Your task to perform on an android device: Add "logitech g910" to the cart on walmart.com Image 0: 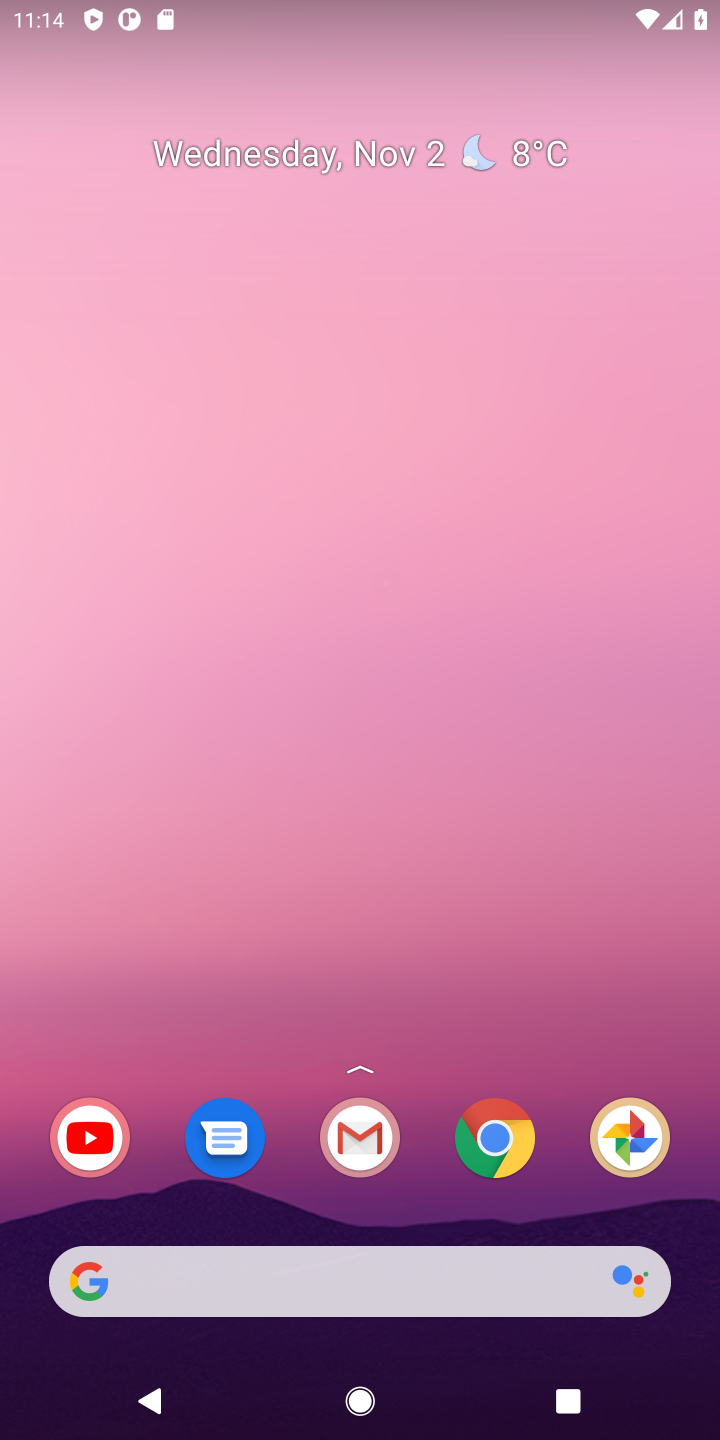
Step 0: click (502, 1144)
Your task to perform on an android device: Add "logitech g910" to the cart on walmart.com Image 1: 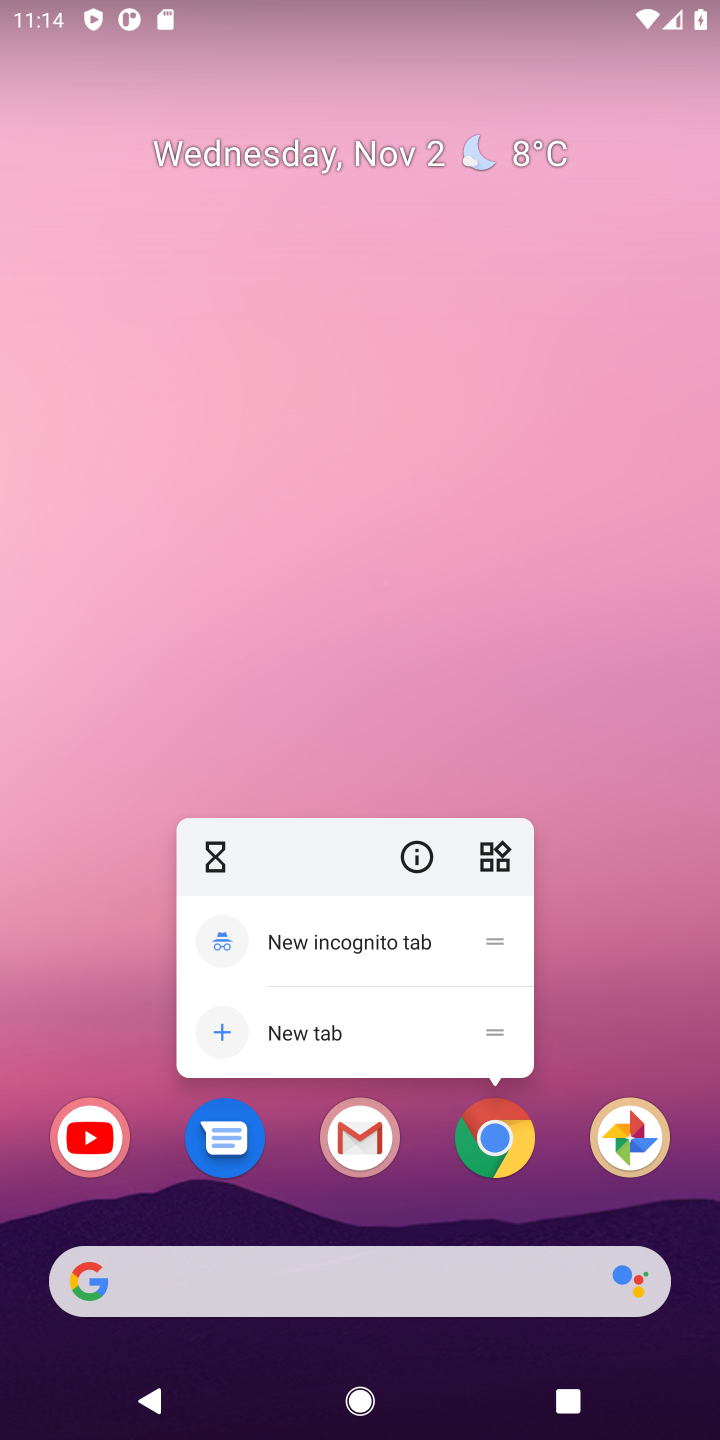
Step 1: click (502, 1144)
Your task to perform on an android device: Add "logitech g910" to the cart on walmart.com Image 2: 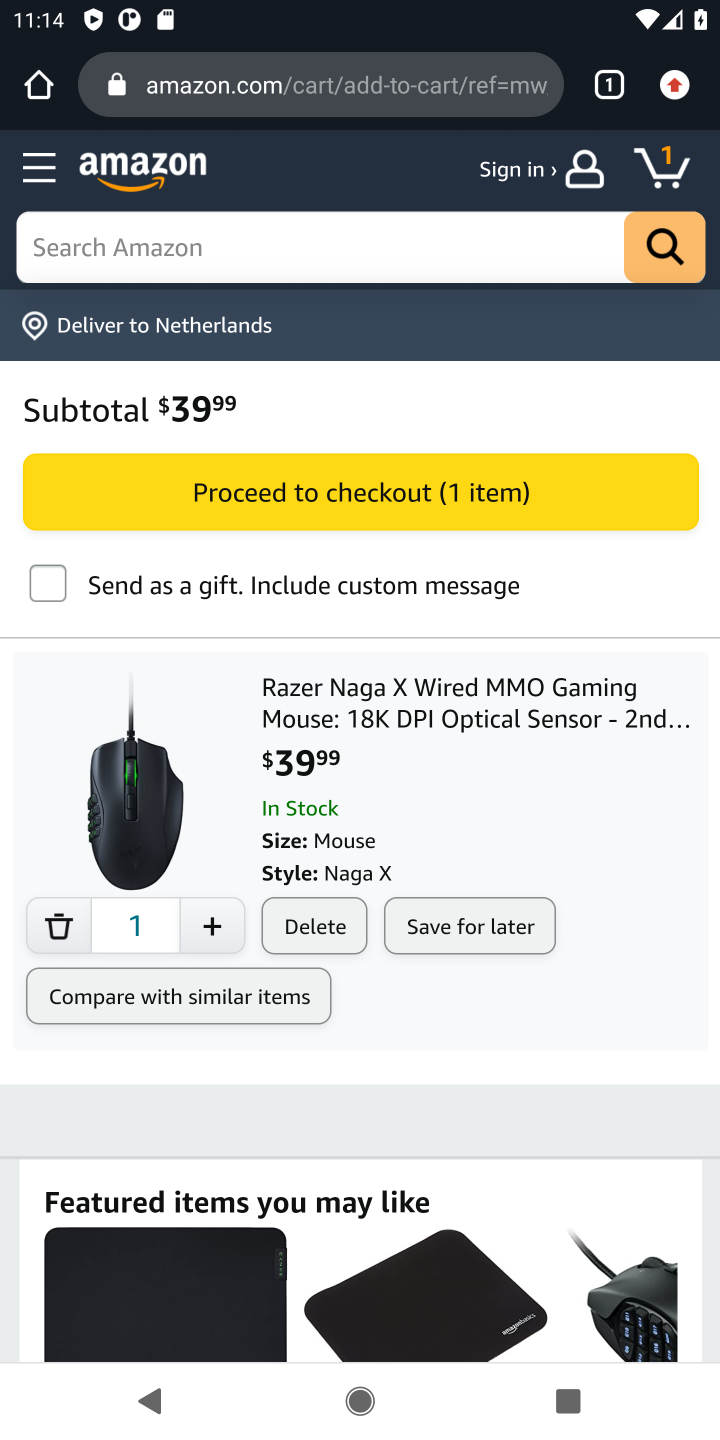
Step 2: click (215, 100)
Your task to perform on an android device: Add "logitech g910" to the cart on walmart.com Image 3: 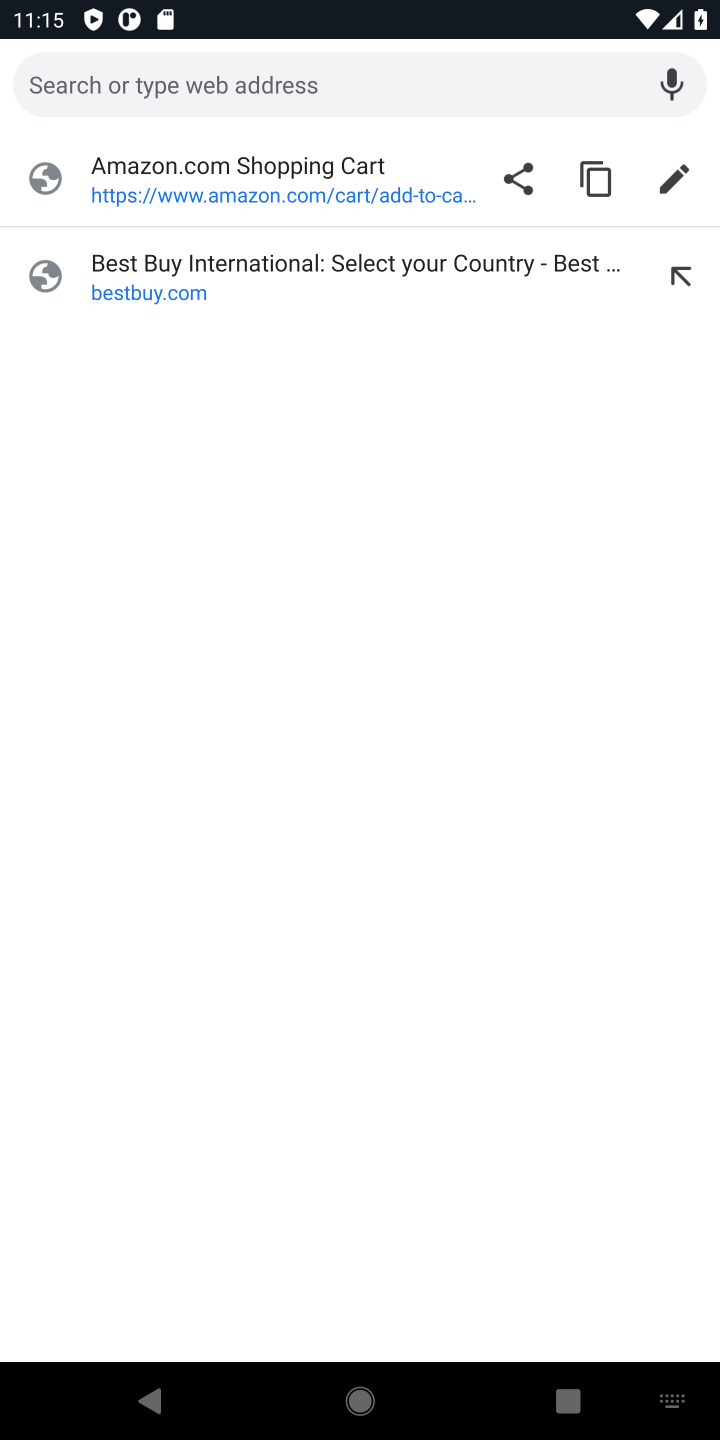
Step 3: type "walmart"
Your task to perform on an android device: Add "logitech g910" to the cart on walmart.com Image 4: 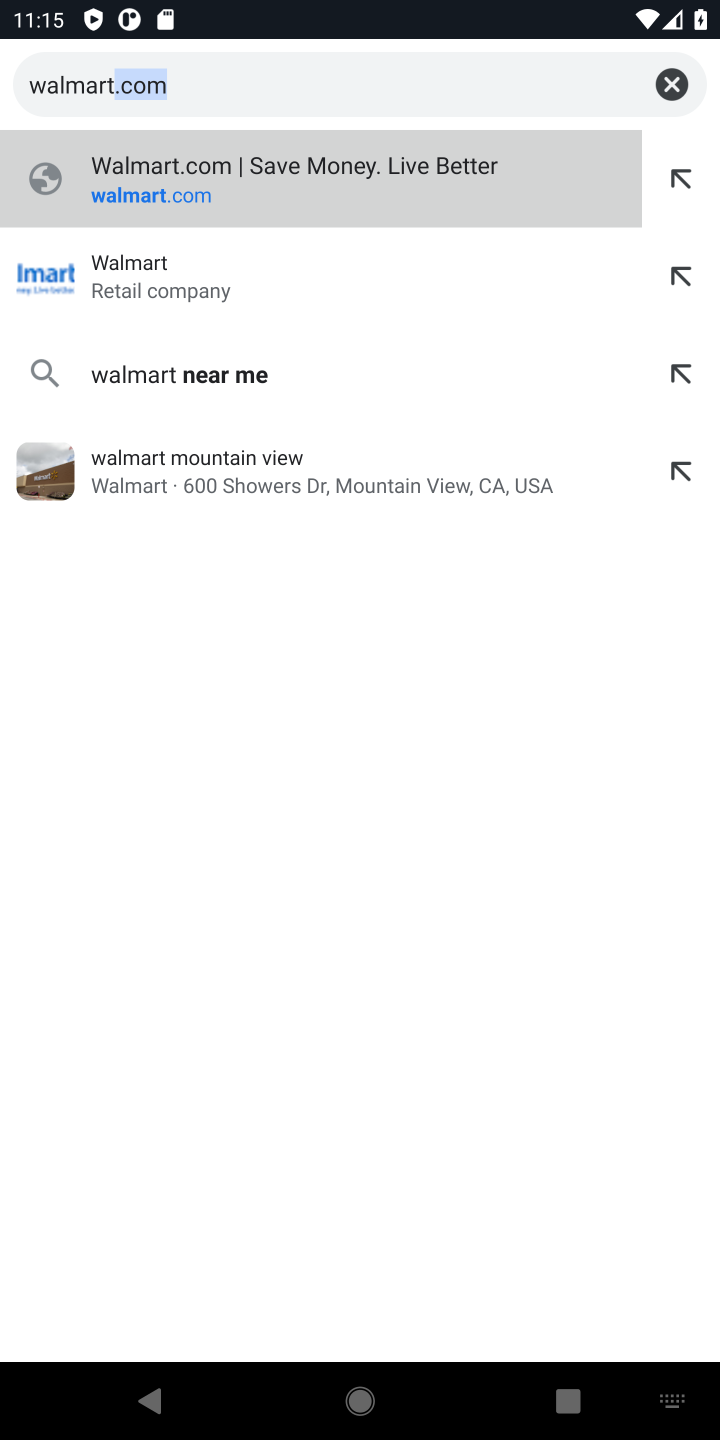
Step 4: click (254, 292)
Your task to perform on an android device: Add "logitech g910" to the cart on walmart.com Image 5: 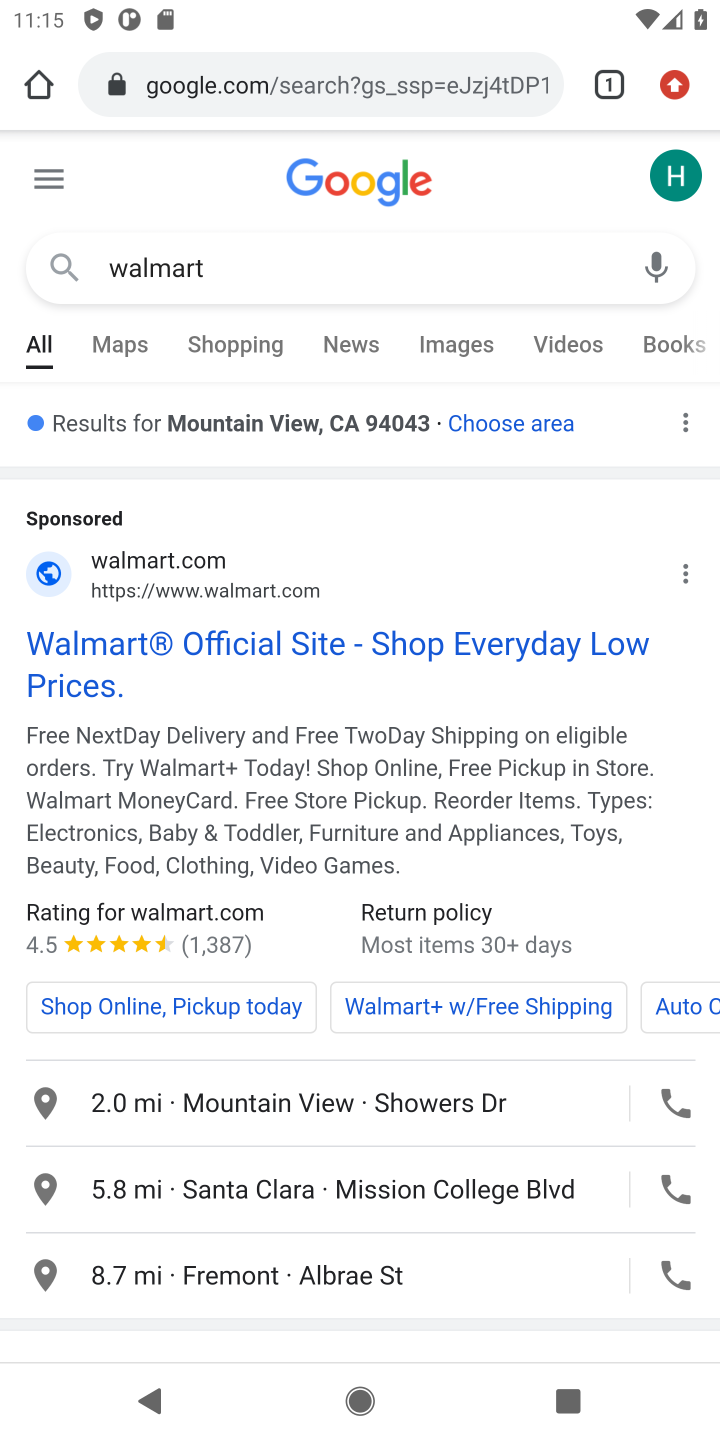
Step 5: click (90, 616)
Your task to perform on an android device: Add "logitech g910" to the cart on walmart.com Image 6: 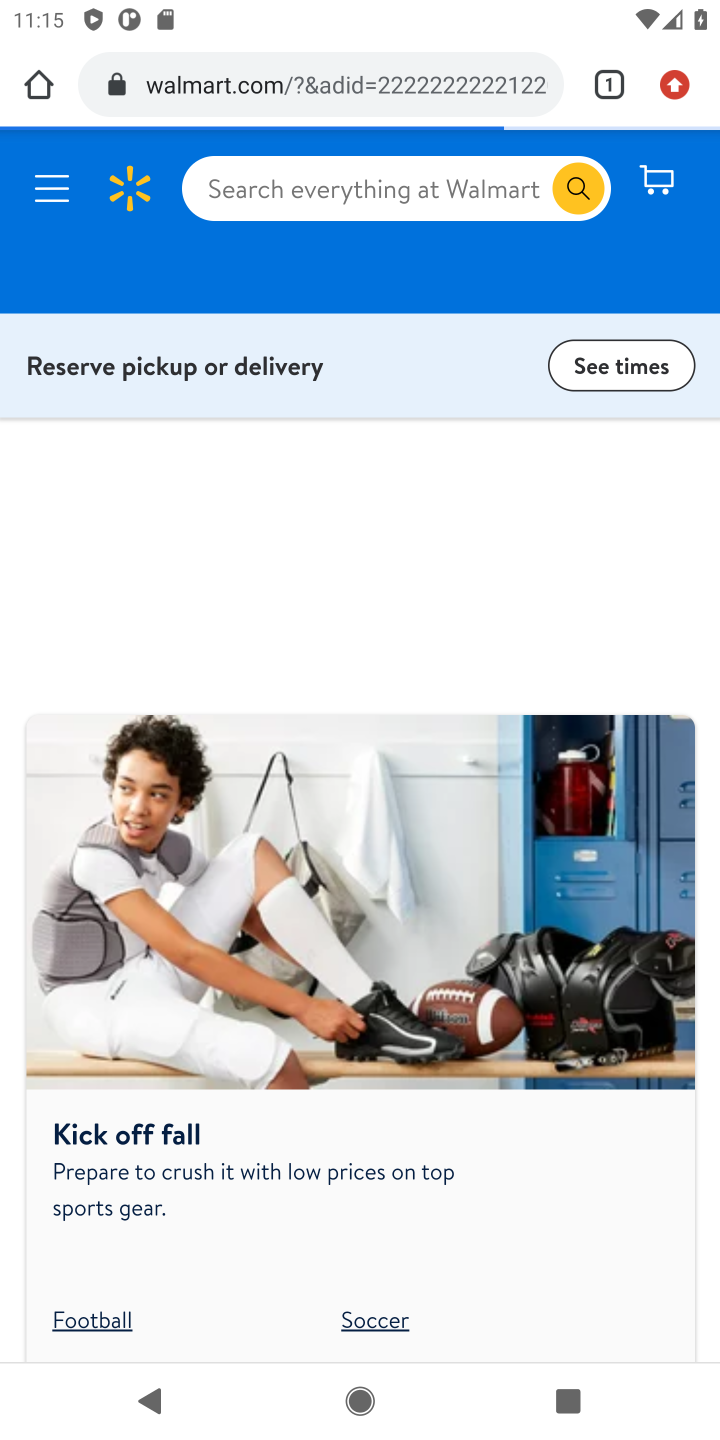
Step 6: click (295, 190)
Your task to perform on an android device: Add "logitech g910" to the cart on walmart.com Image 7: 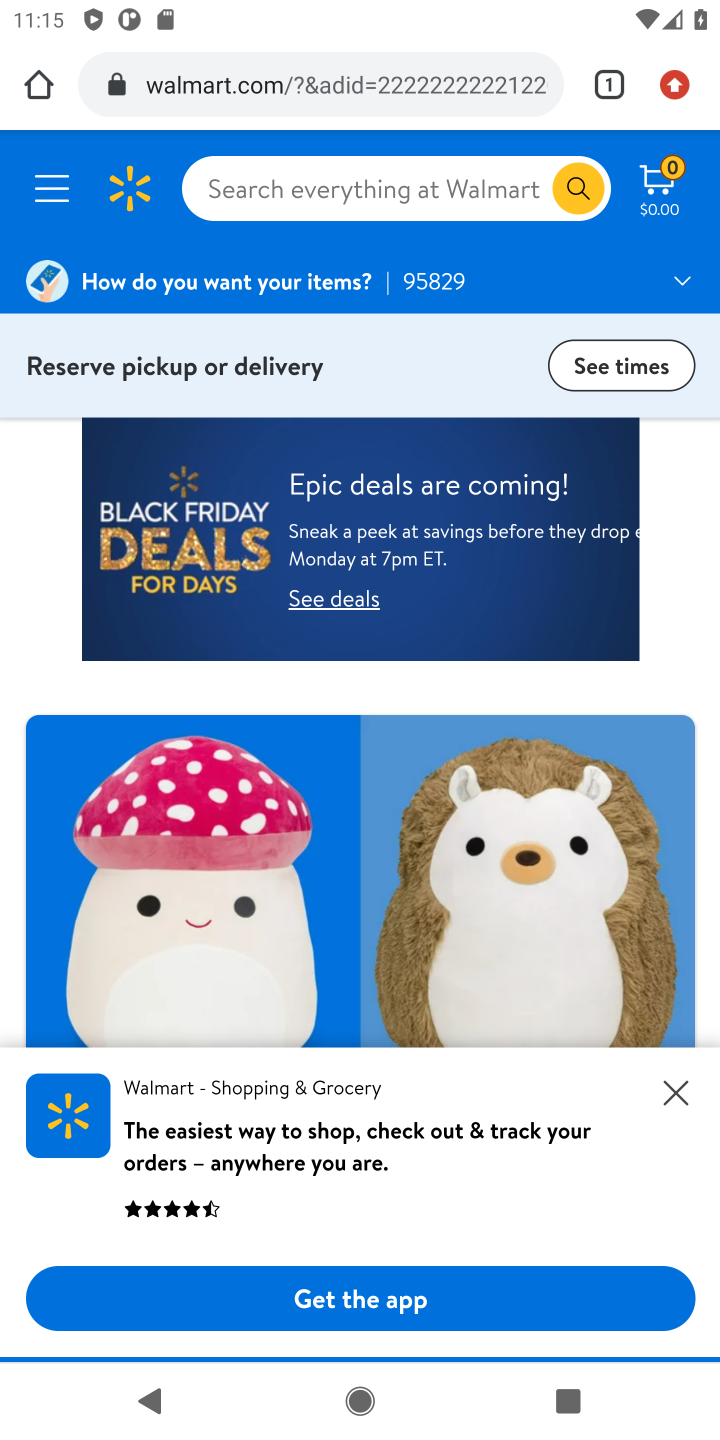
Step 7: click (275, 181)
Your task to perform on an android device: Add "logitech g910" to the cart on walmart.com Image 8: 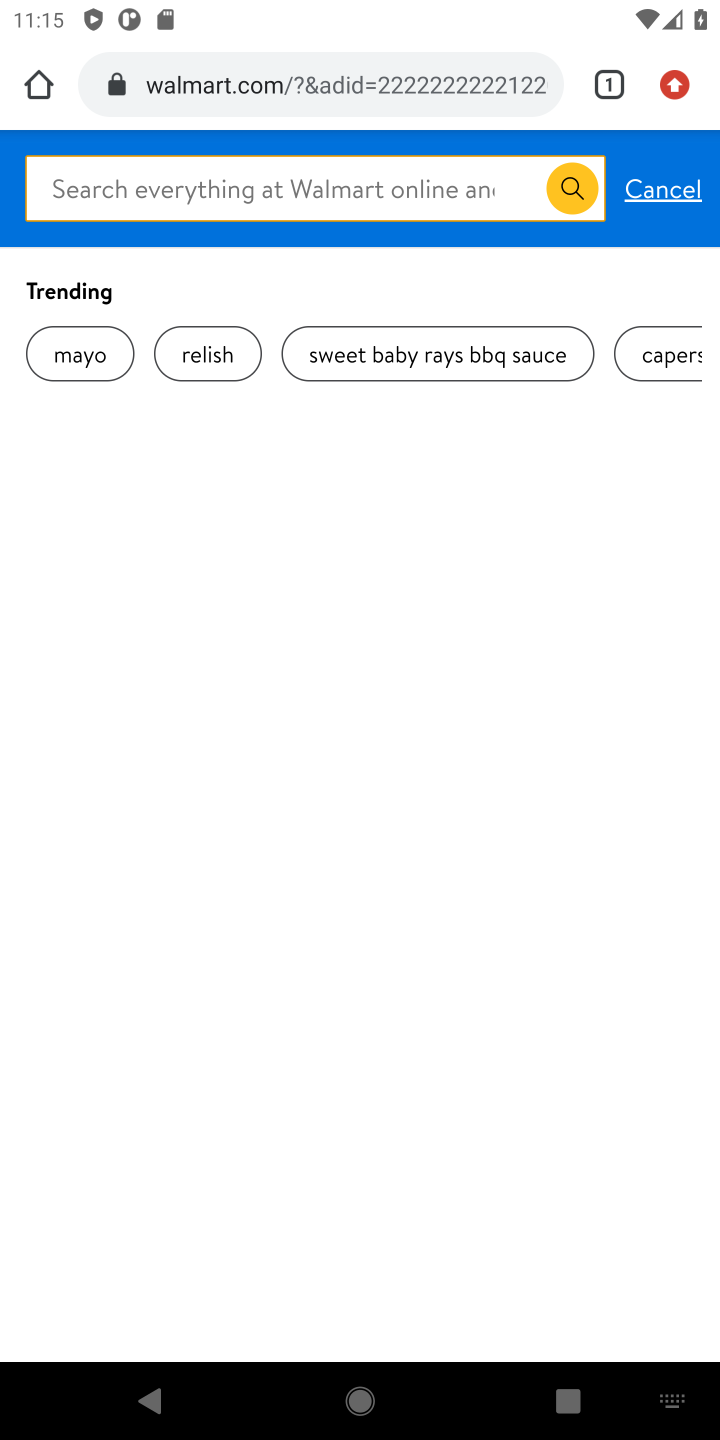
Step 8: type "logitech g910"
Your task to perform on an android device: Add "logitech g910" to the cart on walmart.com Image 9: 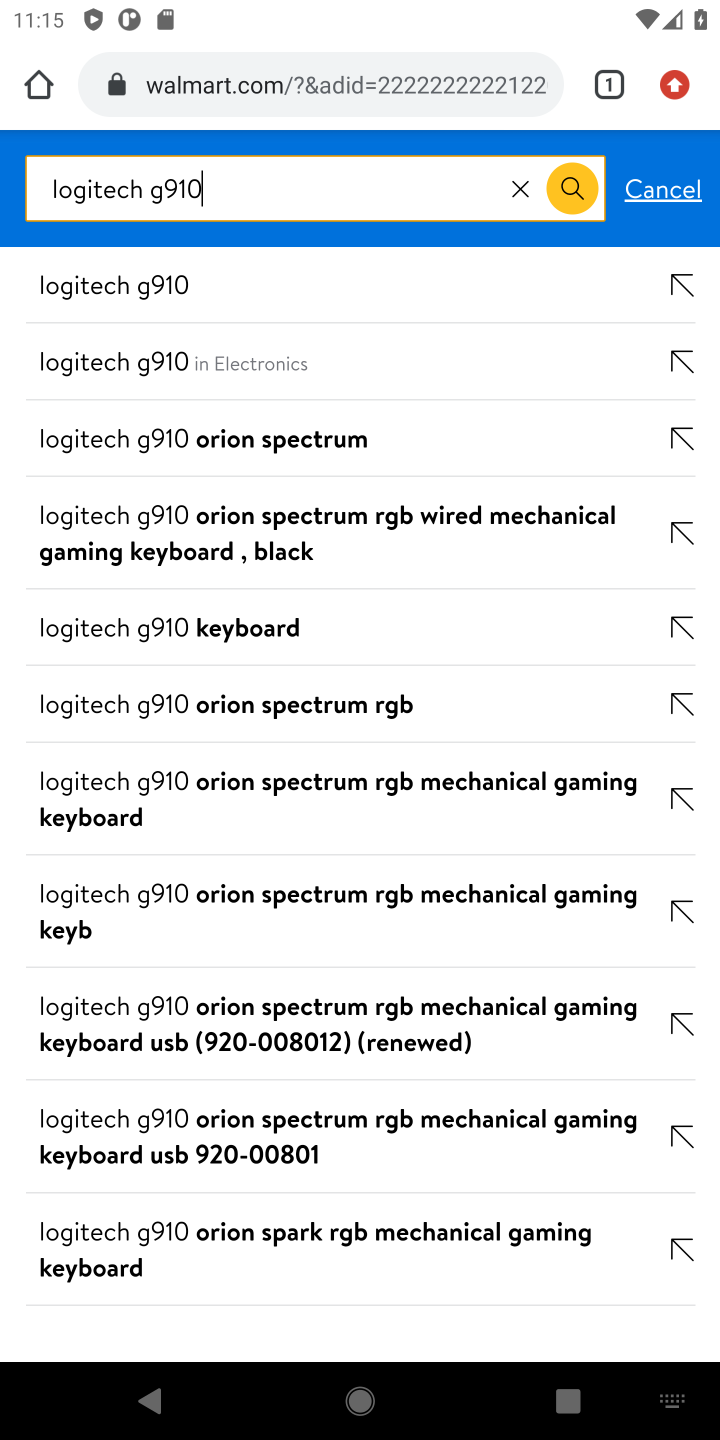
Step 9: click (572, 184)
Your task to perform on an android device: Add "logitech g910" to the cart on walmart.com Image 10: 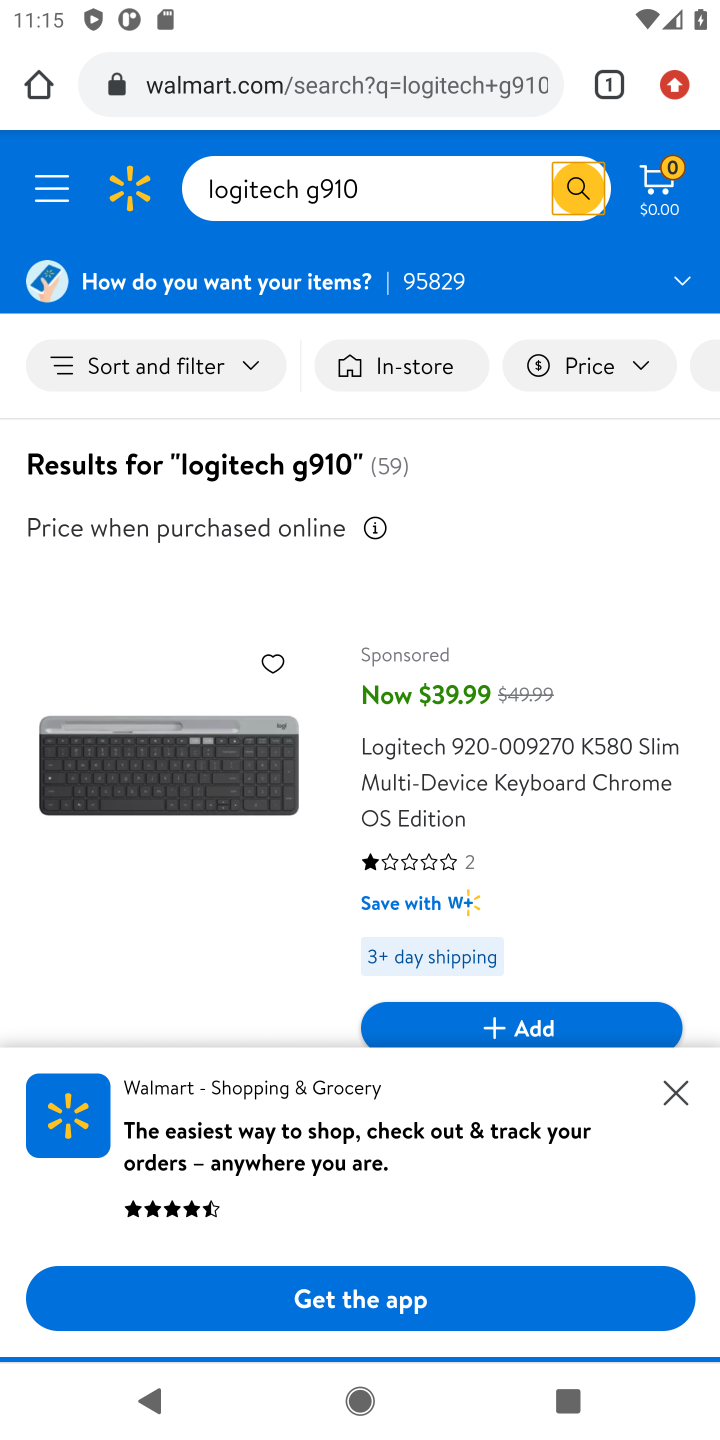
Step 10: click (675, 1082)
Your task to perform on an android device: Add "logitech g910" to the cart on walmart.com Image 11: 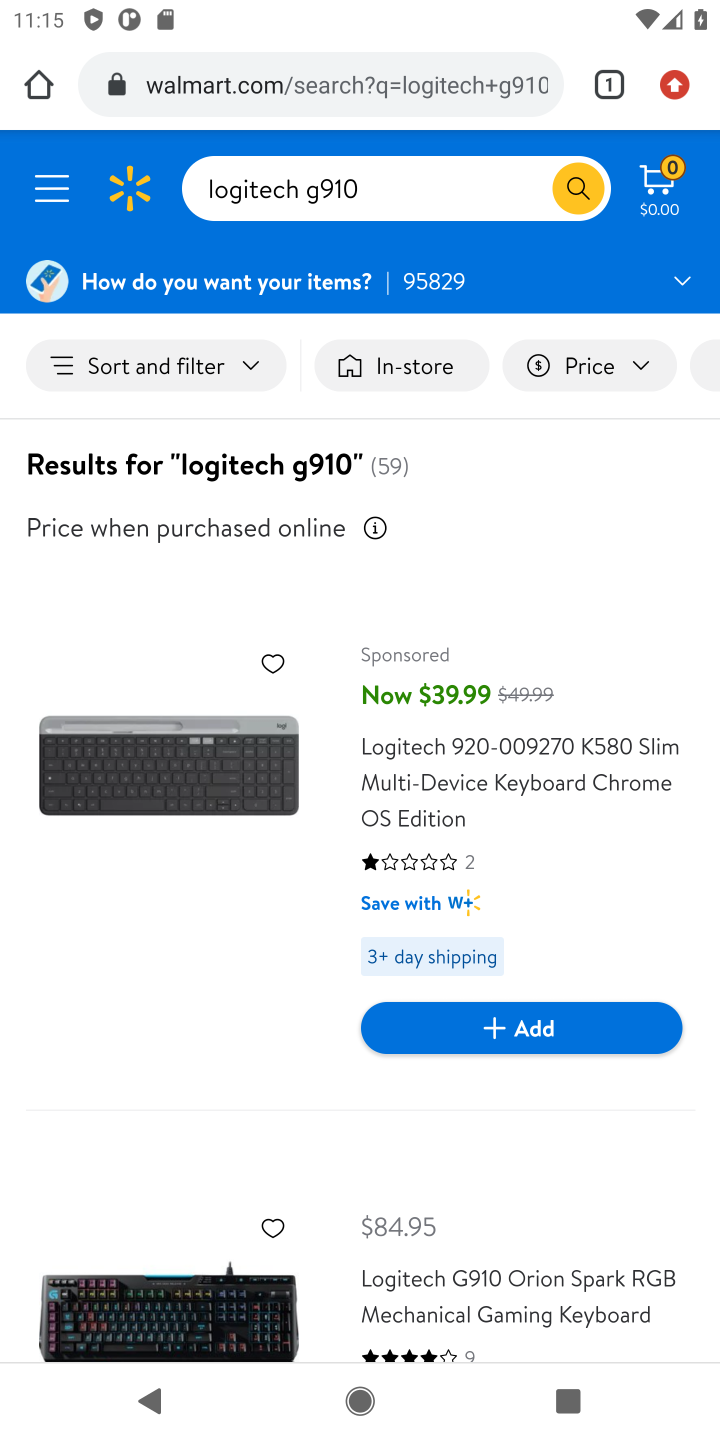
Step 11: drag from (524, 1229) to (470, 574)
Your task to perform on an android device: Add "logitech g910" to the cart on walmart.com Image 12: 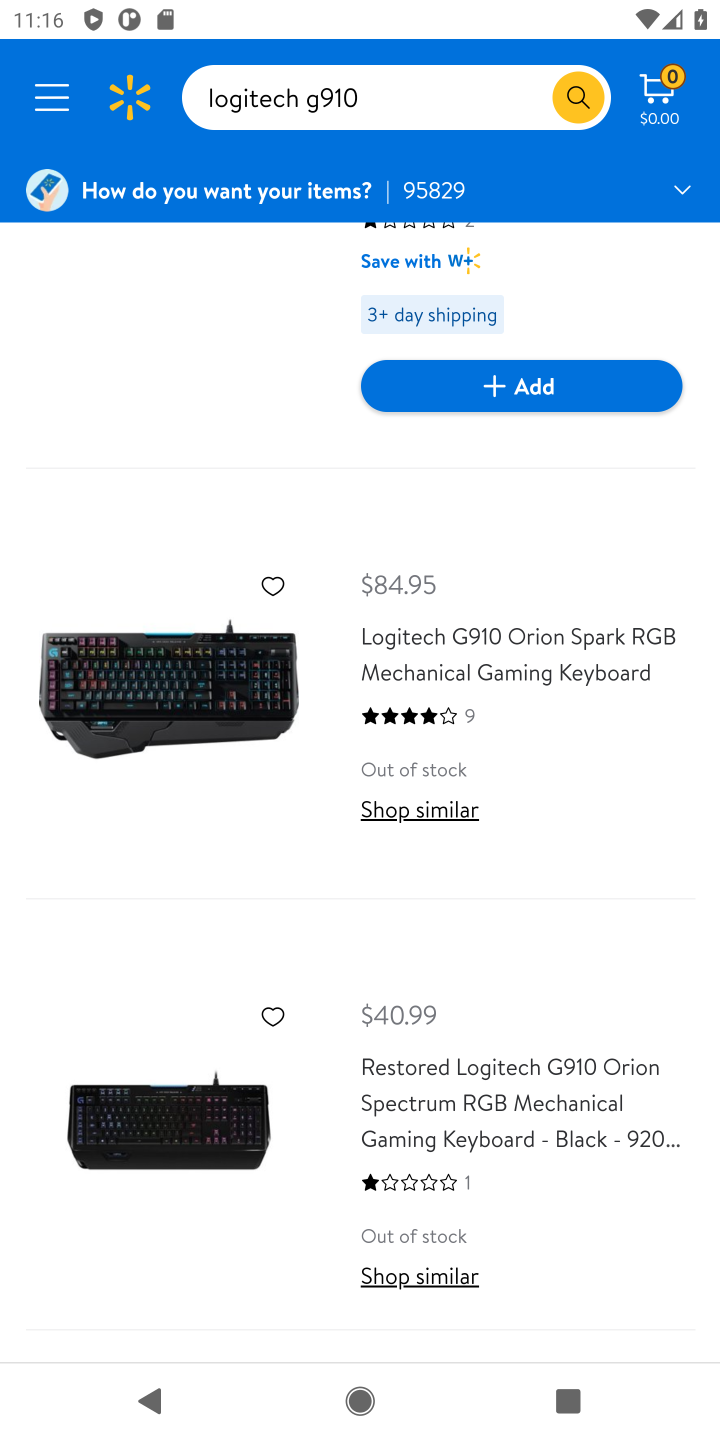
Step 12: drag from (548, 1229) to (469, 537)
Your task to perform on an android device: Add "logitech g910" to the cart on walmart.com Image 13: 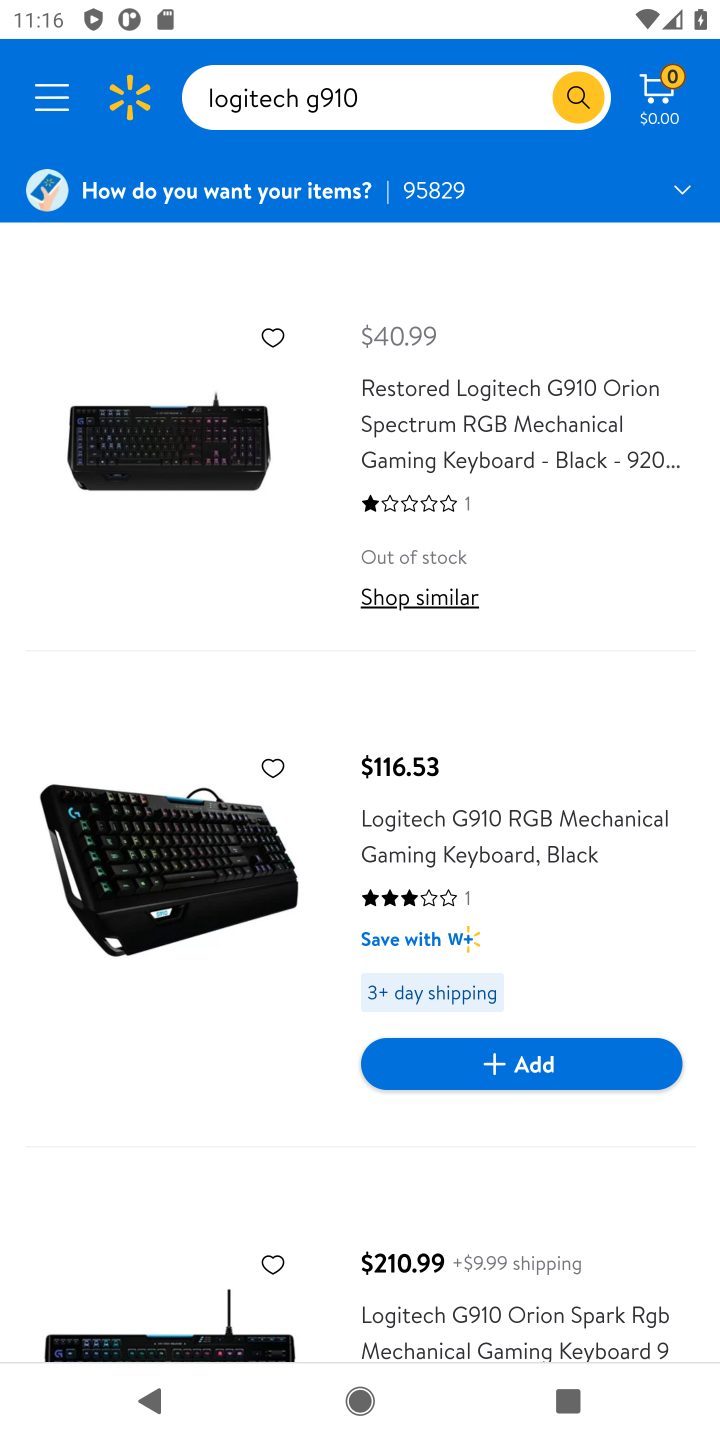
Step 13: click (518, 1056)
Your task to perform on an android device: Add "logitech g910" to the cart on walmart.com Image 14: 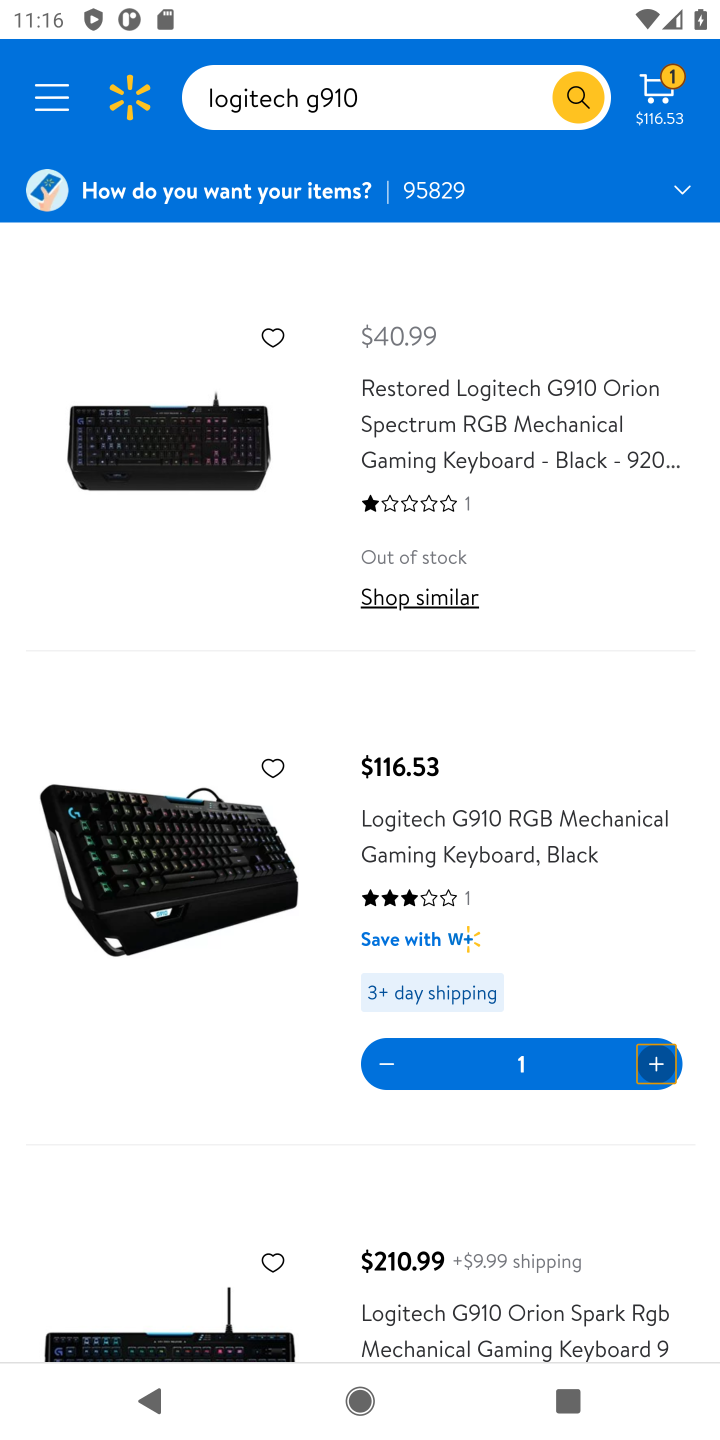
Step 14: task complete